Your task to perform on an android device: toggle sleep mode Image 0: 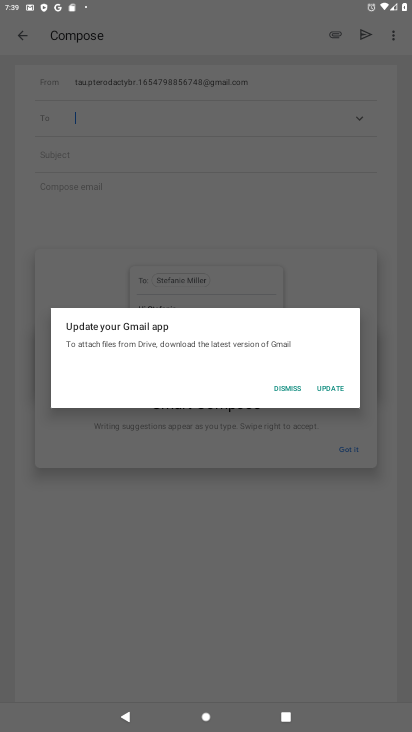
Step 0: press home button
Your task to perform on an android device: toggle sleep mode Image 1: 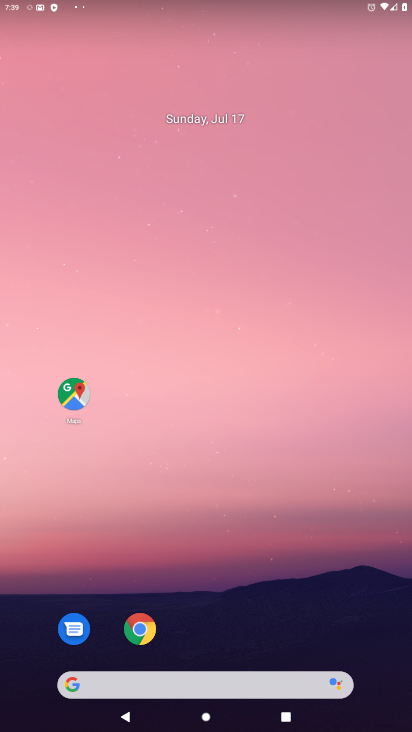
Step 1: drag from (218, 666) to (170, 16)
Your task to perform on an android device: toggle sleep mode Image 2: 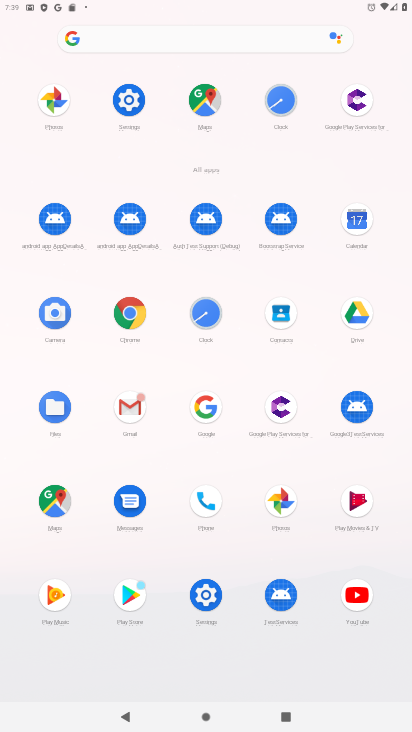
Step 2: click (97, 89)
Your task to perform on an android device: toggle sleep mode Image 3: 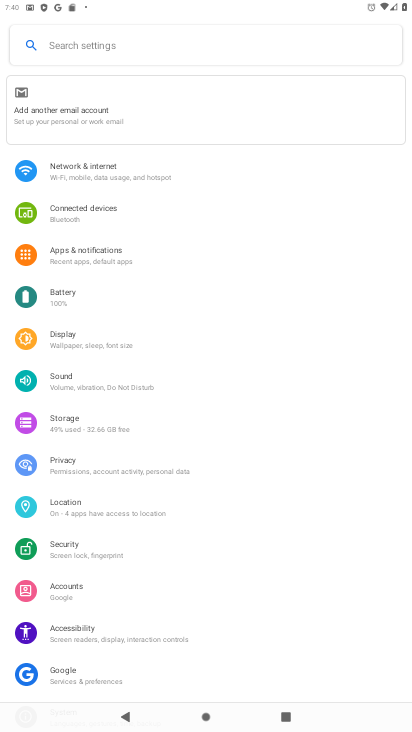
Step 3: click (83, 349)
Your task to perform on an android device: toggle sleep mode Image 4: 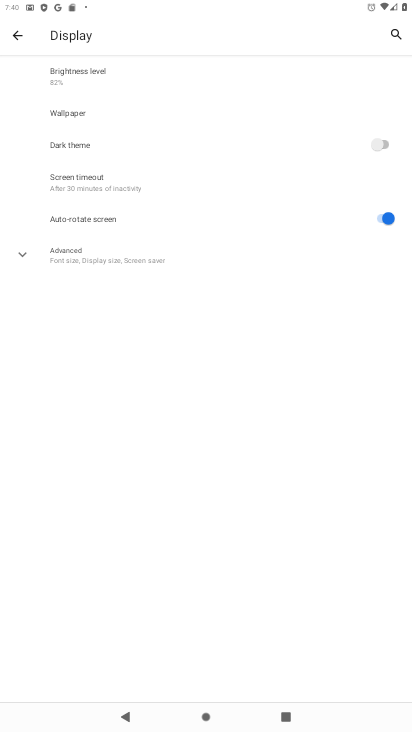
Step 4: task complete